Your task to perform on an android device: check google app version Image 0: 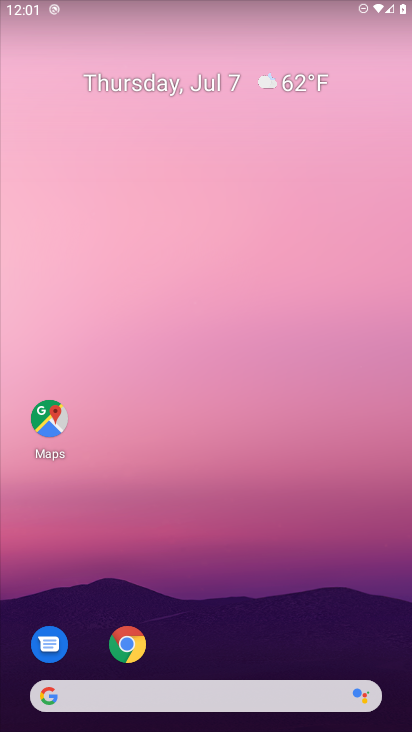
Step 0: press home button
Your task to perform on an android device: check google app version Image 1: 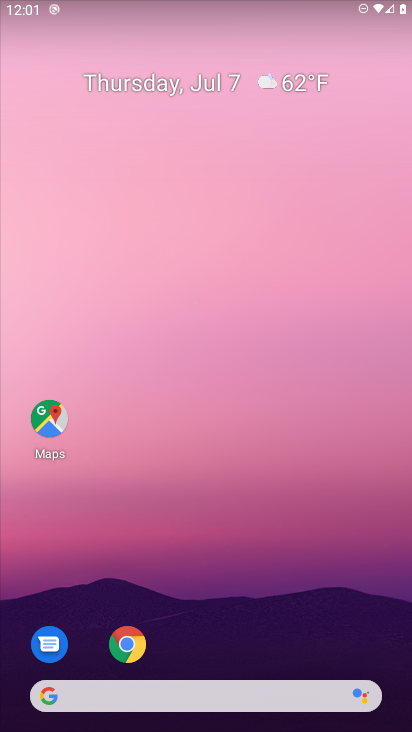
Step 1: drag from (250, 648) to (247, 55)
Your task to perform on an android device: check google app version Image 2: 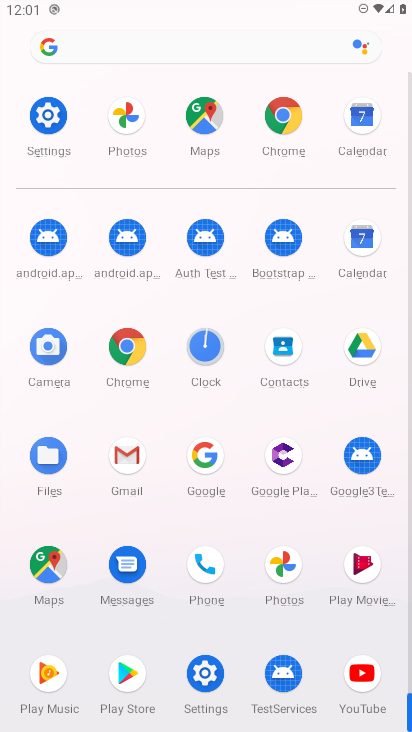
Step 2: click (209, 461)
Your task to perform on an android device: check google app version Image 3: 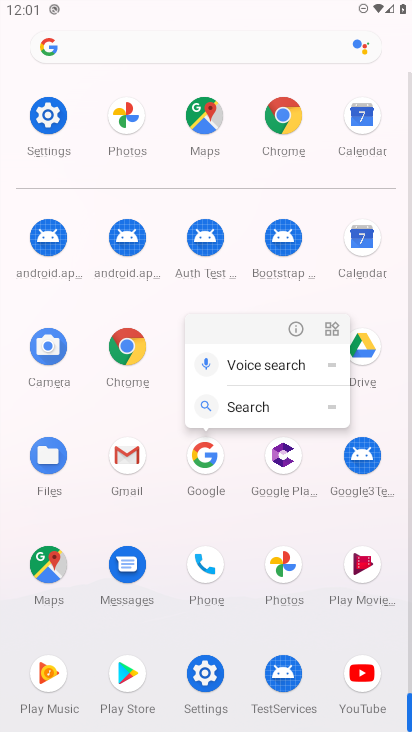
Step 3: click (202, 463)
Your task to perform on an android device: check google app version Image 4: 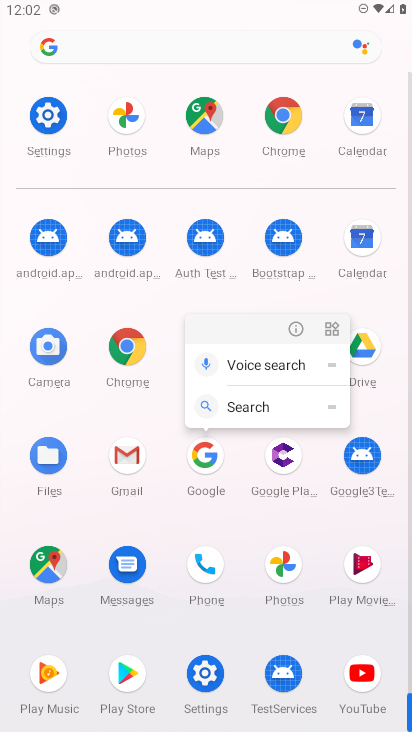
Step 4: click (328, 406)
Your task to perform on an android device: check google app version Image 5: 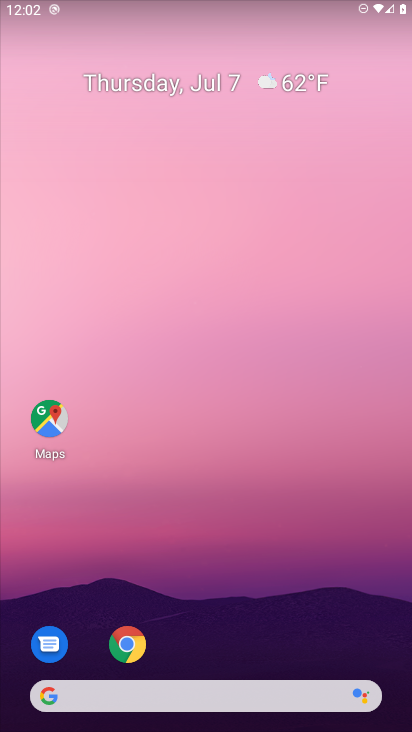
Step 5: drag from (287, 630) to (287, 188)
Your task to perform on an android device: check google app version Image 6: 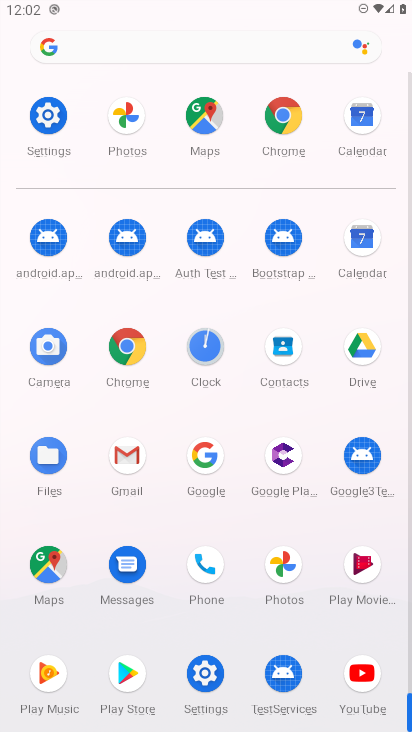
Step 6: click (207, 466)
Your task to perform on an android device: check google app version Image 7: 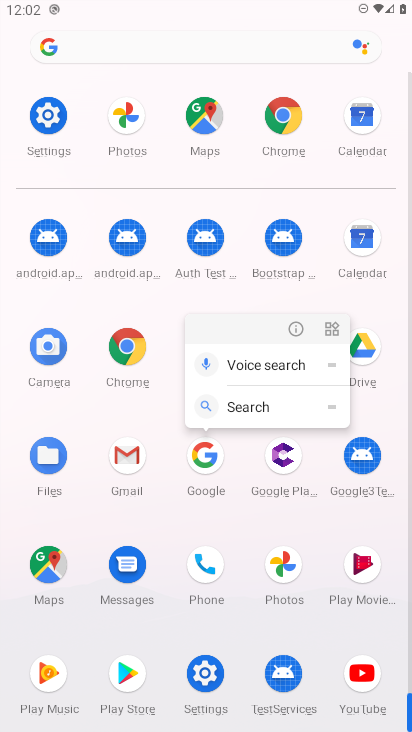
Step 7: click (228, 449)
Your task to perform on an android device: check google app version Image 8: 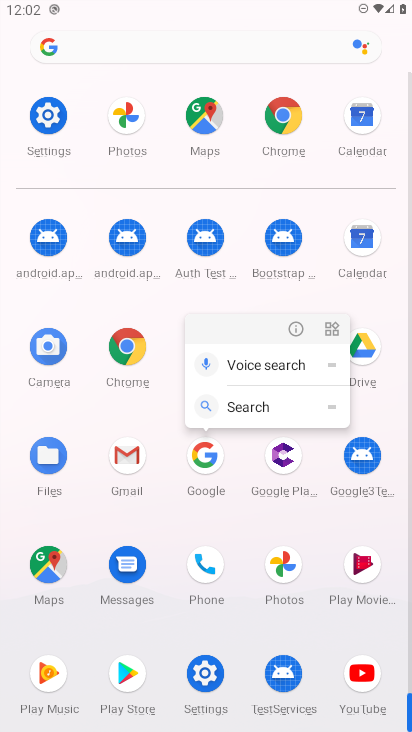
Step 8: click (209, 459)
Your task to perform on an android device: check google app version Image 9: 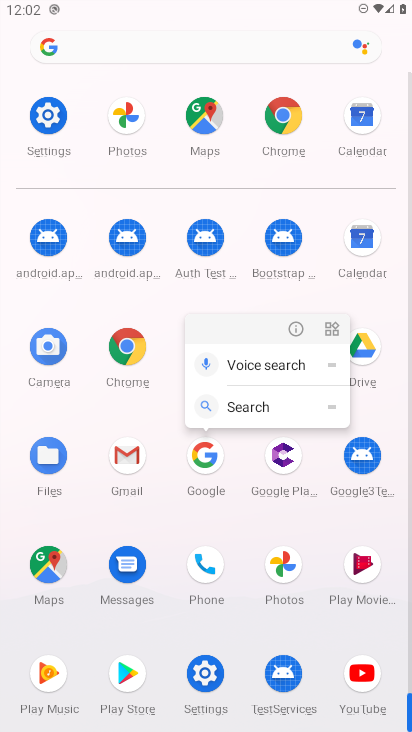
Step 9: click (328, 409)
Your task to perform on an android device: check google app version Image 10: 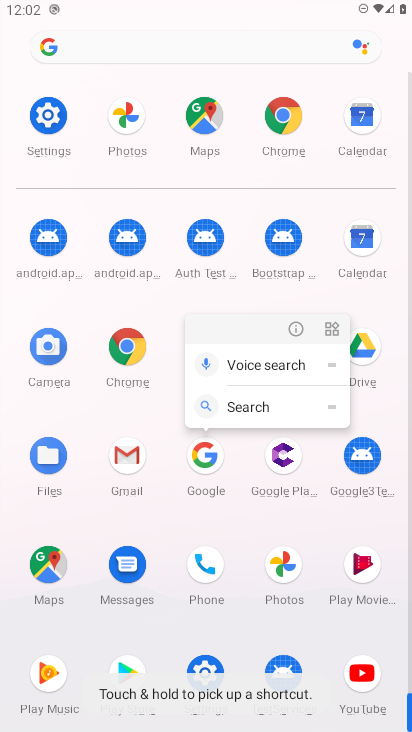
Step 10: click (328, 409)
Your task to perform on an android device: check google app version Image 11: 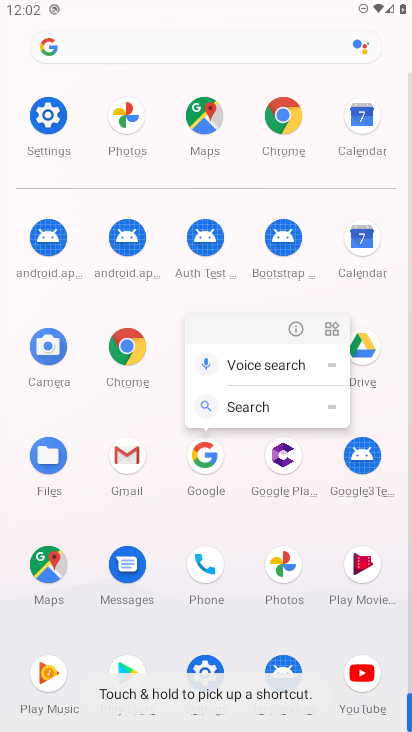
Step 11: click (330, 361)
Your task to perform on an android device: check google app version Image 12: 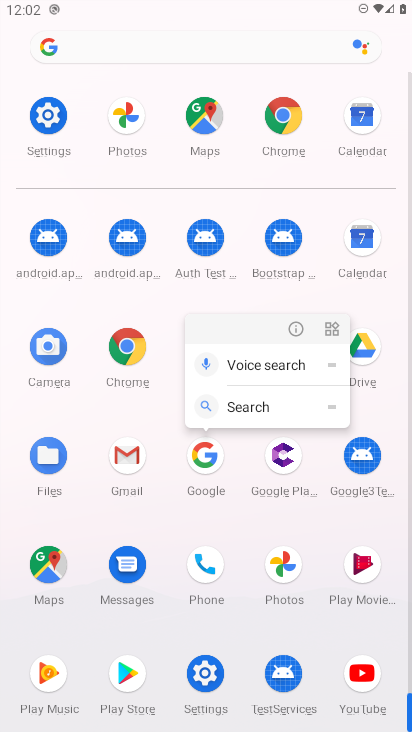
Step 12: click (257, 503)
Your task to perform on an android device: check google app version Image 13: 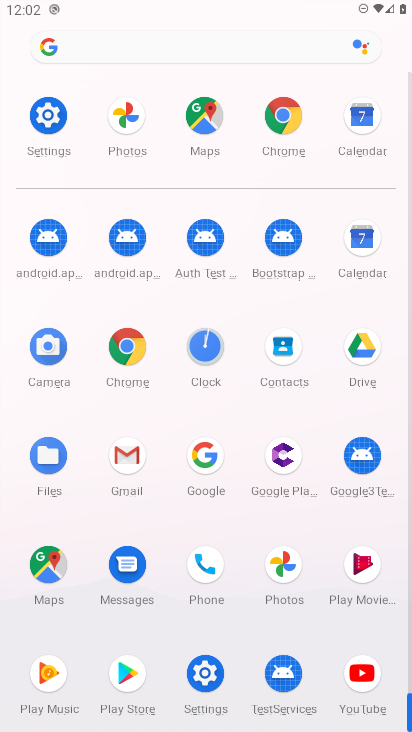
Step 13: click (207, 467)
Your task to perform on an android device: check google app version Image 14: 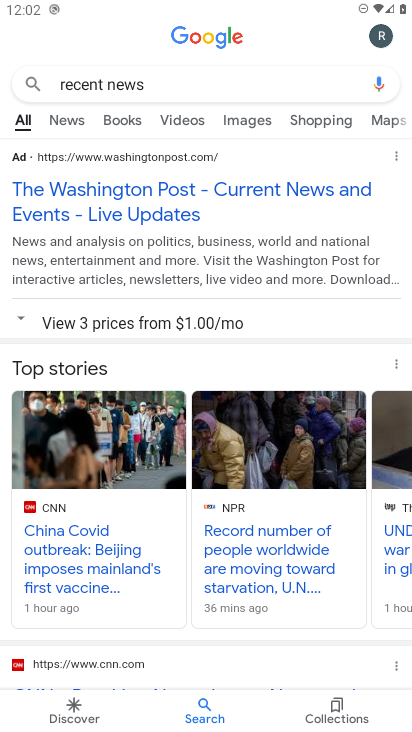
Step 14: press back button
Your task to perform on an android device: check google app version Image 15: 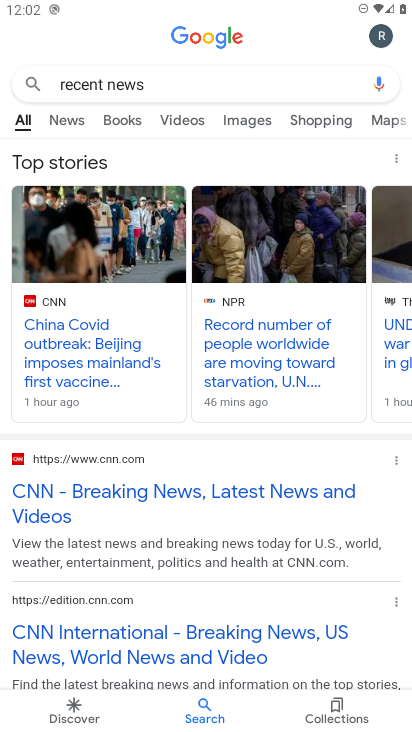
Step 15: press home button
Your task to perform on an android device: check google app version Image 16: 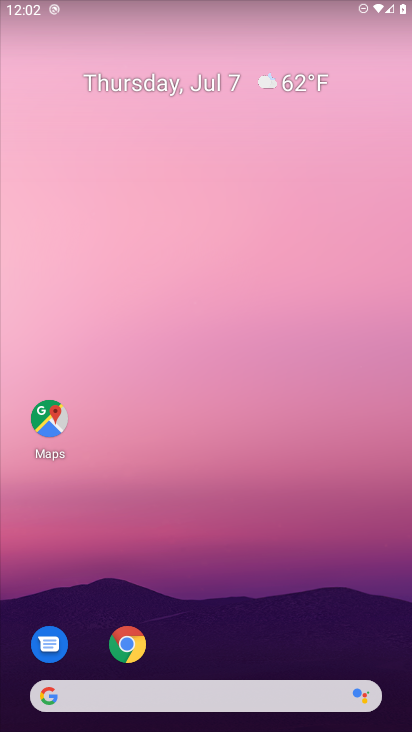
Step 16: click (124, 642)
Your task to perform on an android device: check google app version Image 17: 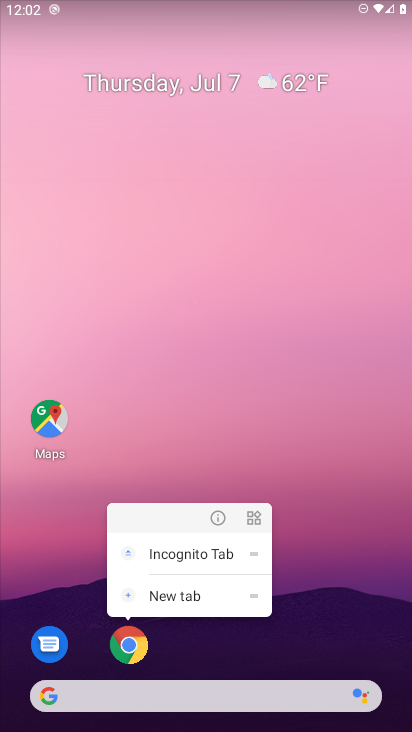
Step 17: click (336, 381)
Your task to perform on an android device: check google app version Image 18: 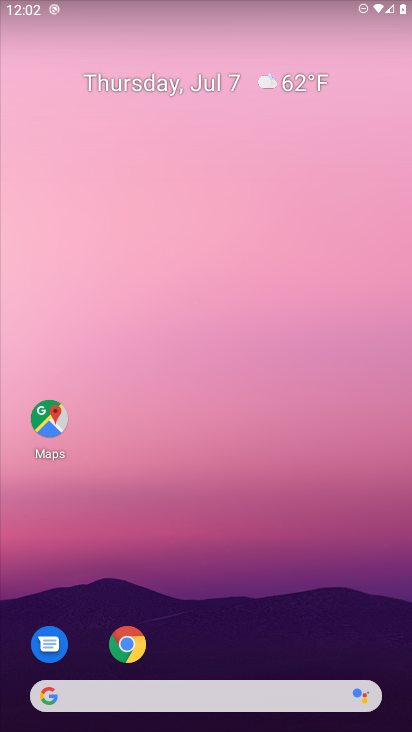
Step 18: click (49, 696)
Your task to perform on an android device: check google app version Image 19: 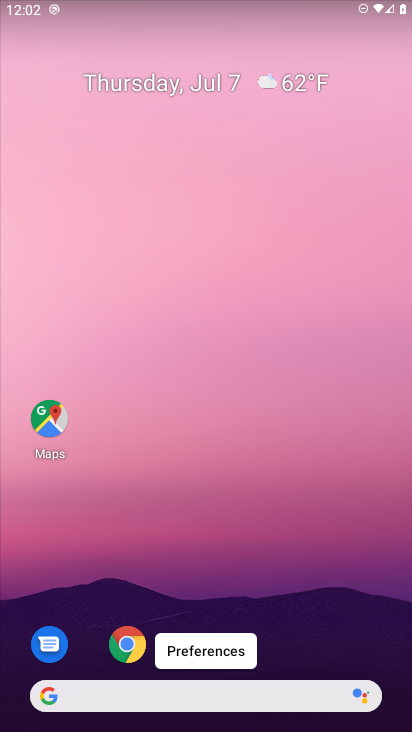
Step 19: drag from (227, 437) to (405, 494)
Your task to perform on an android device: check google app version Image 20: 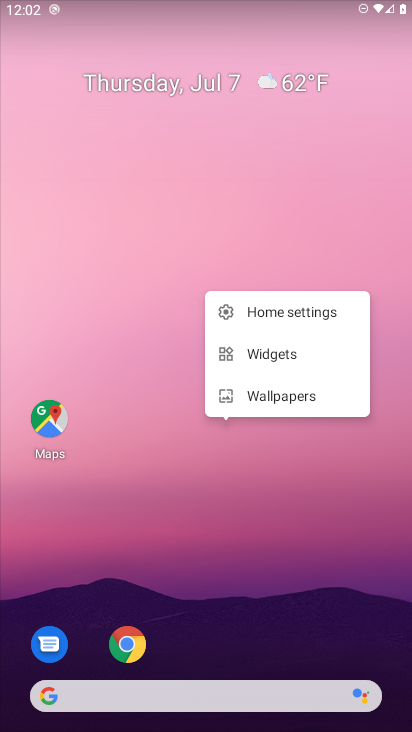
Step 20: drag from (300, 548) to (359, 8)
Your task to perform on an android device: check google app version Image 21: 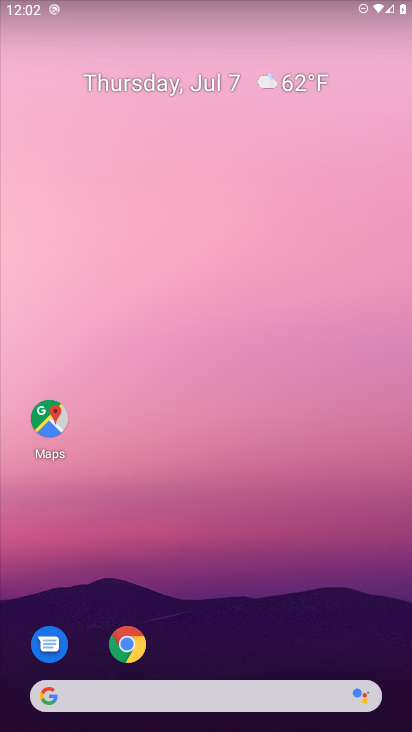
Step 21: drag from (206, 471) to (367, 659)
Your task to perform on an android device: check google app version Image 22: 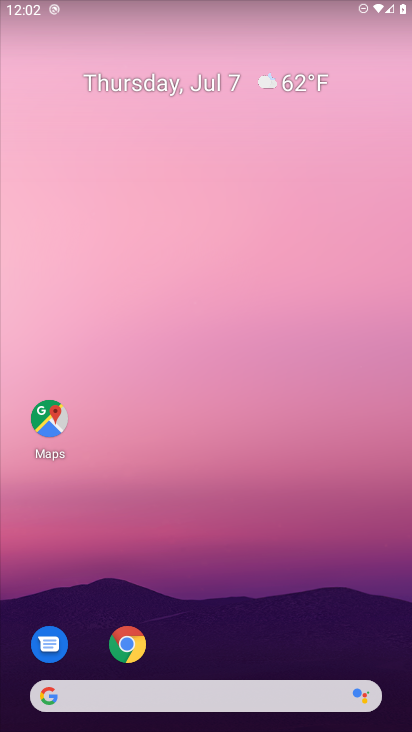
Step 22: drag from (209, 649) to (157, 2)
Your task to perform on an android device: check google app version Image 23: 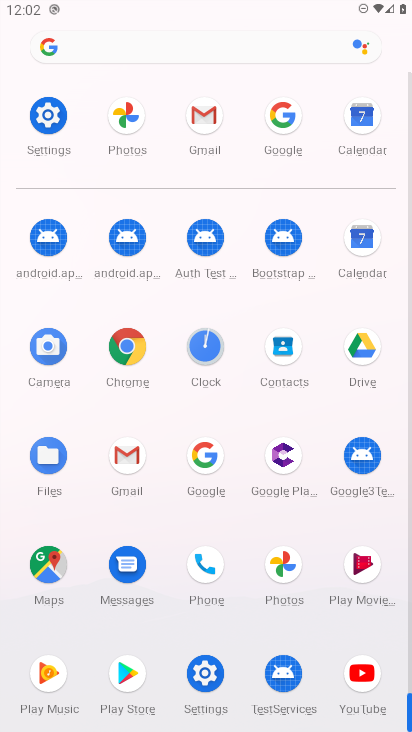
Step 23: drag from (177, 507) to (182, 263)
Your task to perform on an android device: check google app version Image 24: 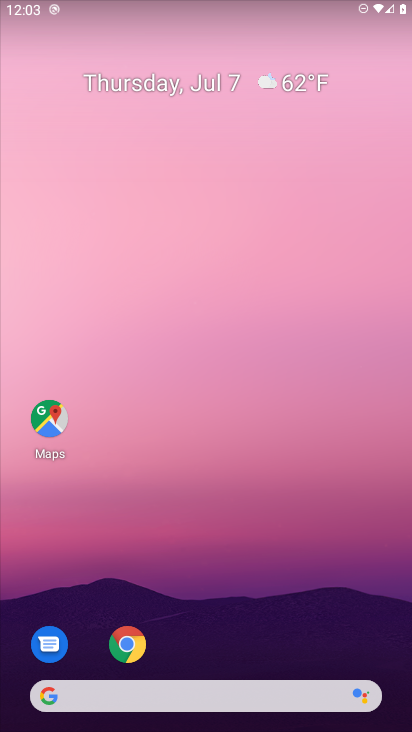
Step 24: drag from (156, 567) to (300, 4)
Your task to perform on an android device: check google app version Image 25: 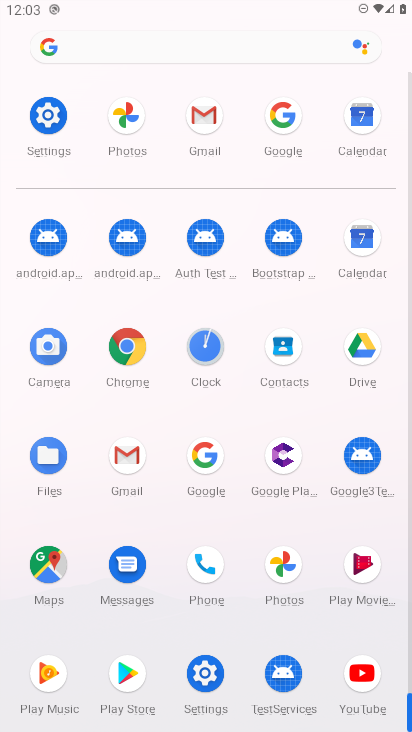
Step 25: click (280, 123)
Your task to perform on an android device: check google app version Image 26: 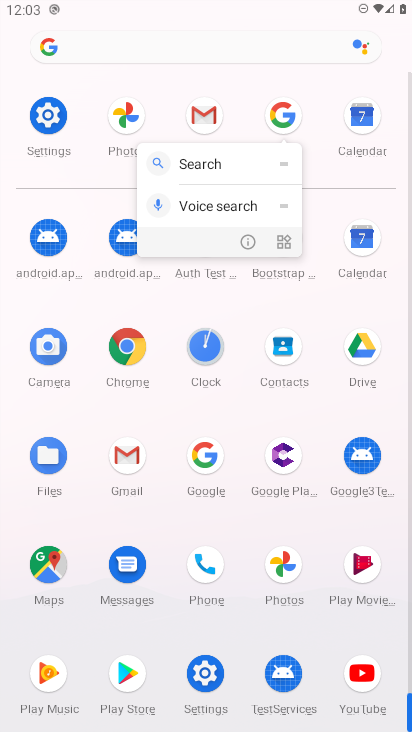
Step 26: click (253, 244)
Your task to perform on an android device: check google app version Image 27: 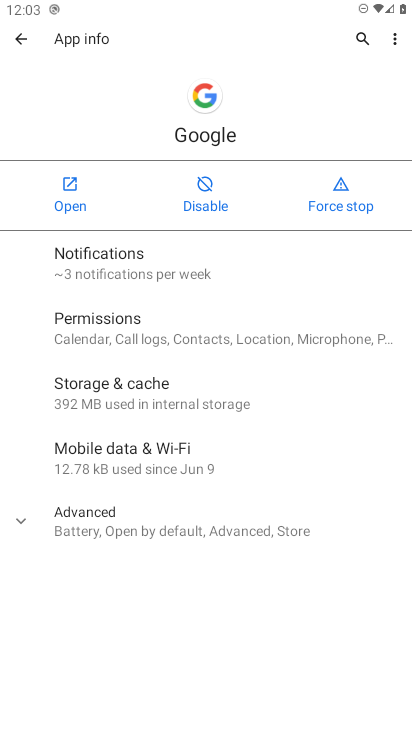
Step 27: click (400, 39)
Your task to perform on an android device: check google app version Image 28: 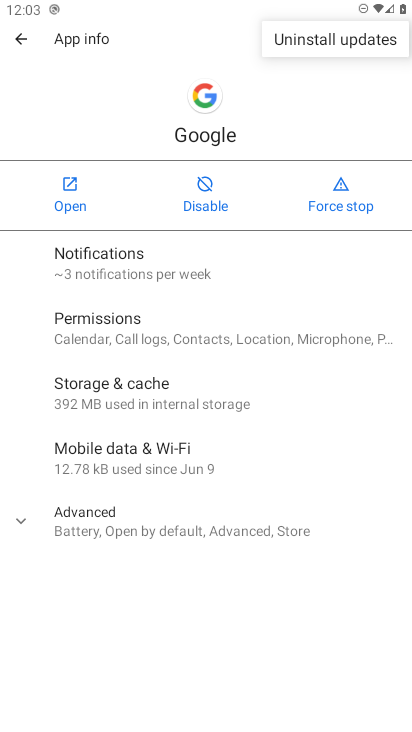
Step 28: click (265, 66)
Your task to perform on an android device: check google app version Image 29: 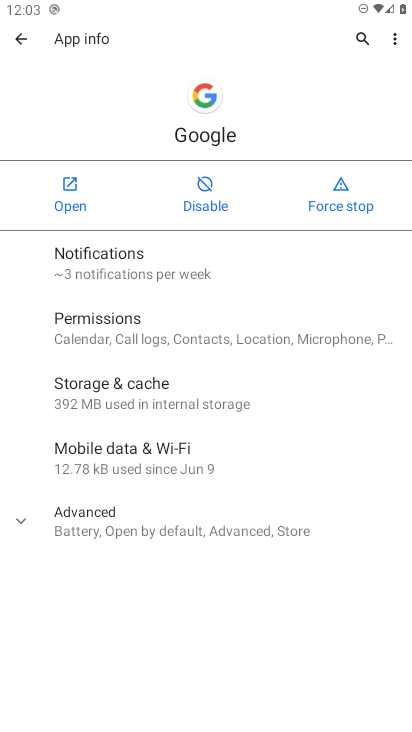
Step 29: task complete